Your task to perform on an android device: change the clock display to show seconds Image 0: 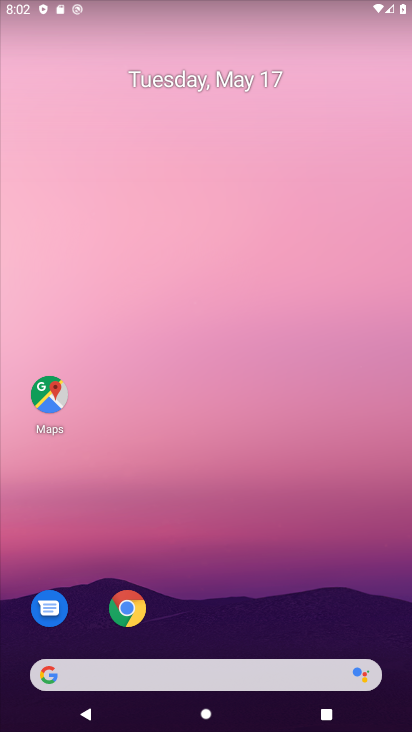
Step 0: drag from (349, 577) to (376, 64)
Your task to perform on an android device: change the clock display to show seconds Image 1: 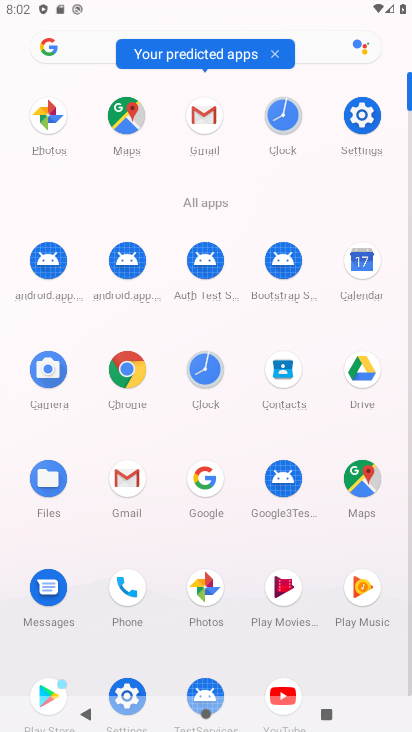
Step 1: click (287, 119)
Your task to perform on an android device: change the clock display to show seconds Image 2: 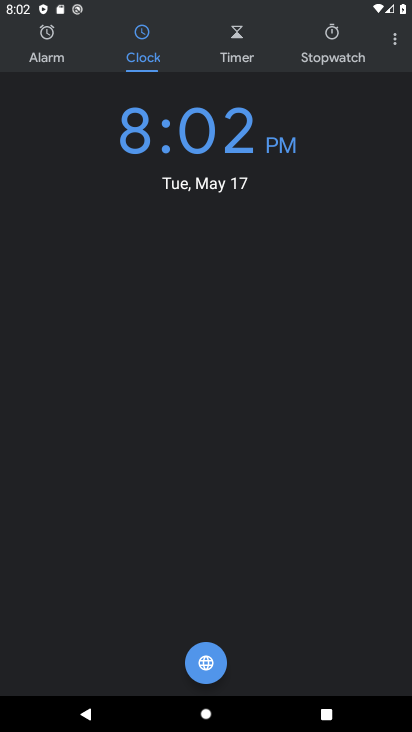
Step 2: click (396, 43)
Your task to perform on an android device: change the clock display to show seconds Image 3: 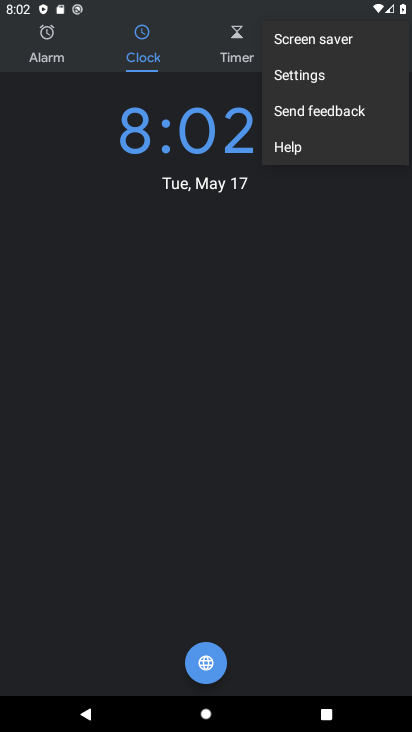
Step 3: click (341, 73)
Your task to perform on an android device: change the clock display to show seconds Image 4: 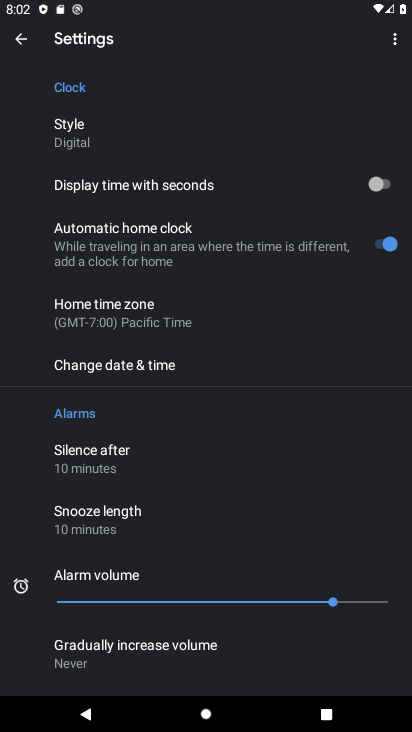
Step 4: drag from (332, 532) to (355, 359)
Your task to perform on an android device: change the clock display to show seconds Image 5: 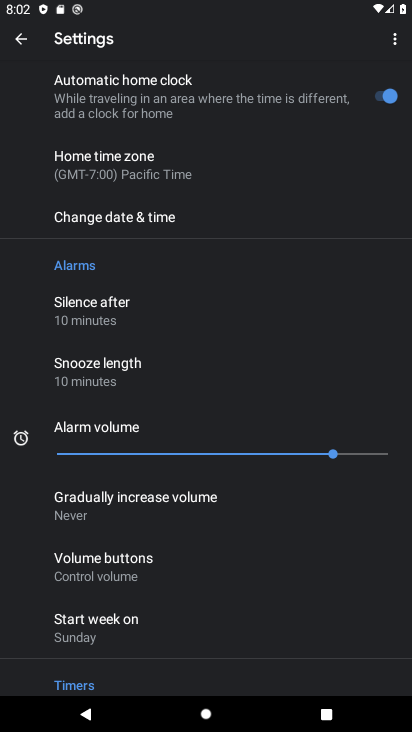
Step 5: drag from (347, 566) to (365, 392)
Your task to perform on an android device: change the clock display to show seconds Image 6: 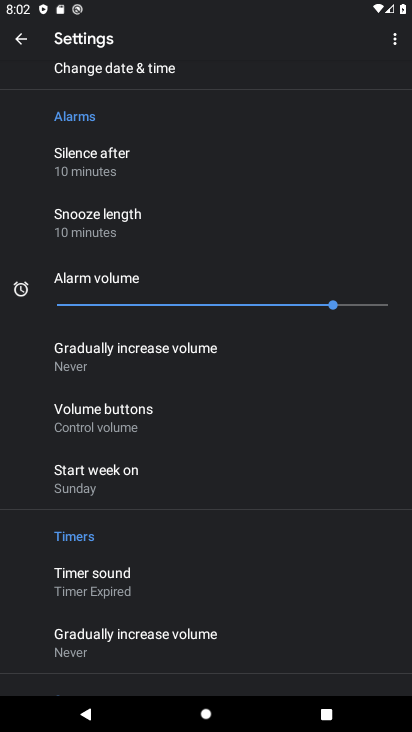
Step 6: drag from (346, 607) to (353, 443)
Your task to perform on an android device: change the clock display to show seconds Image 7: 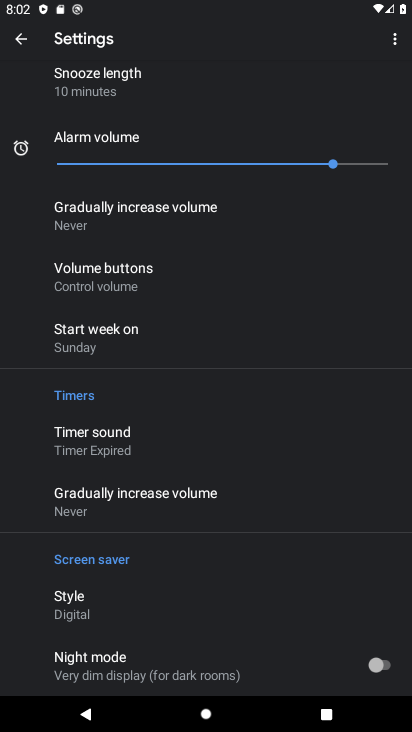
Step 7: drag from (334, 596) to (328, 407)
Your task to perform on an android device: change the clock display to show seconds Image 8: 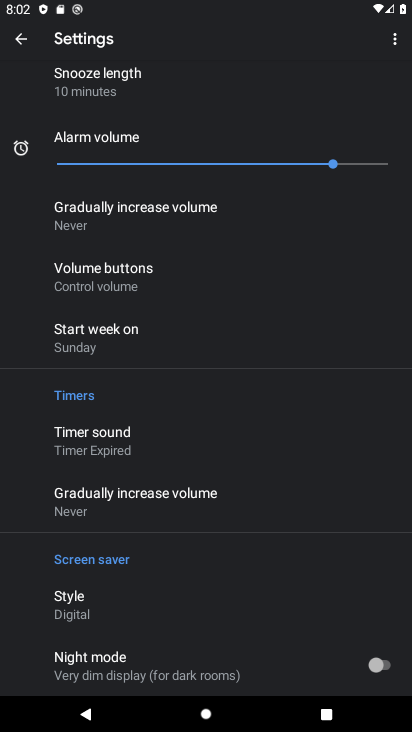
Step 8: drag from (322, 254) to (306, 423)
Your task to perform on an android device: change the clock display to show seconds Image 9: 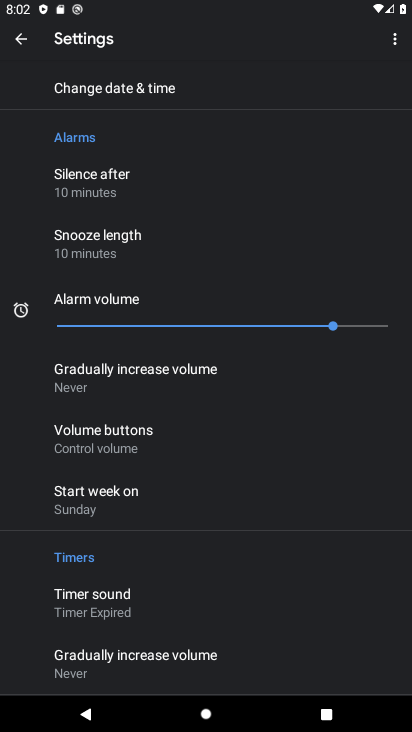
Step 9: drag from (312, 250) to (316, 358)
Your task to perform on an android device: change the clock display to show seconds Image 10: 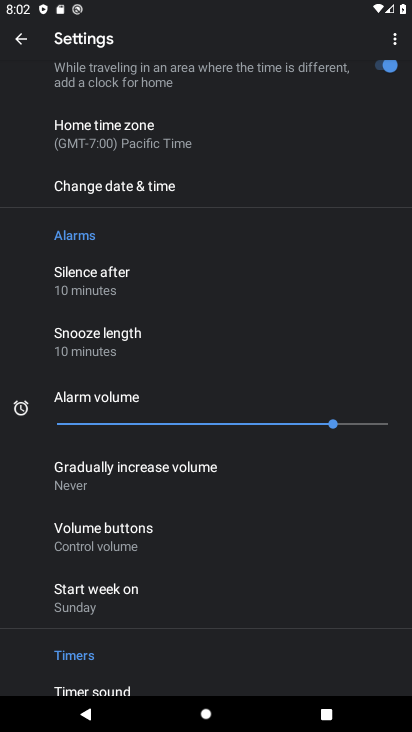
Step 10: drag from (308, 190) to (300, 355)
Your task to perform on an android device: change the clock display to show seconds Image 11: 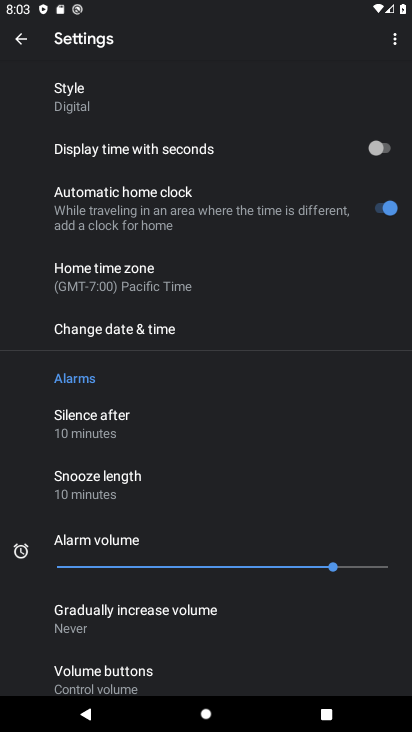
Step 11: click (371, 152)
Your task to perform on an android device: change the clock display to show seconds Image 12: 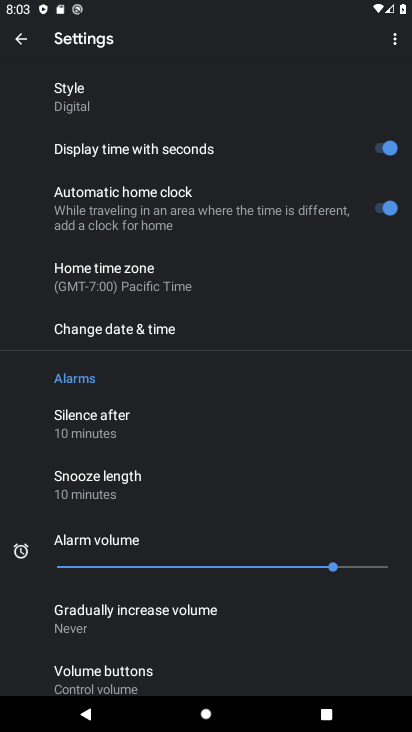
Step 12: task complete